Your task to perform on an android device: Go to Reddit.com Image 0: 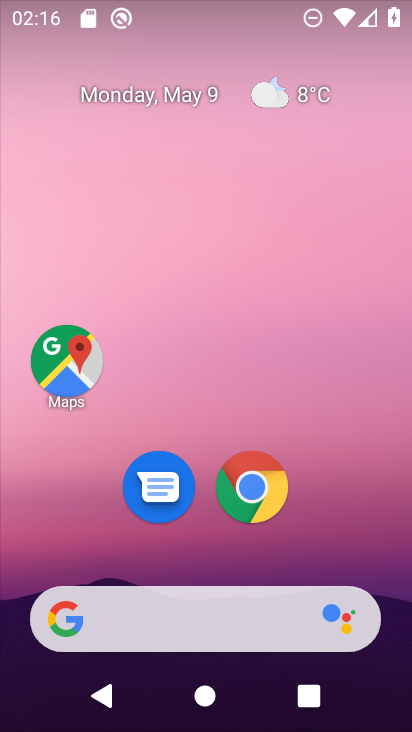
Step 0: click (257, 507)
Your task to perform on an android device: Go to Reddit.com Image 1: 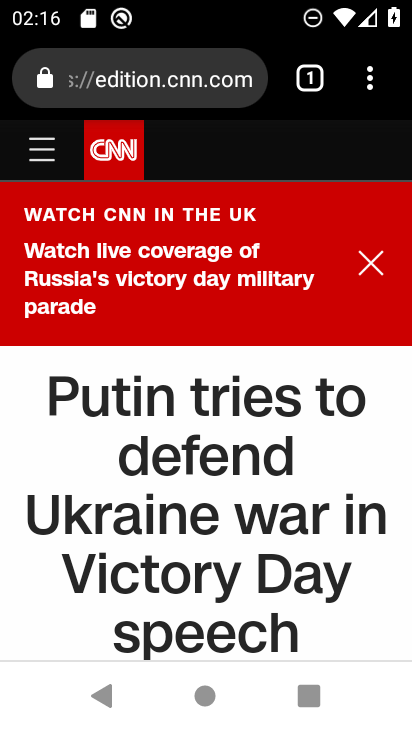
Step 1: click (182, 89)
Your task to perform on an android device: Go to Reddit.com Image 2: 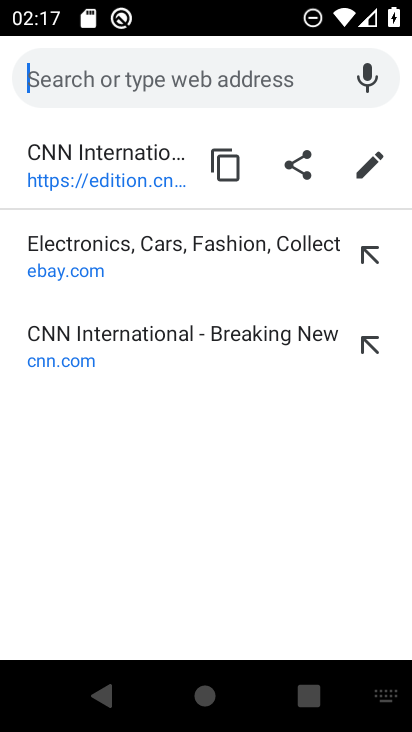
Step 2: type "reddit.com"
Your task to perform on an android device: Go to Reddit.com Image 3: 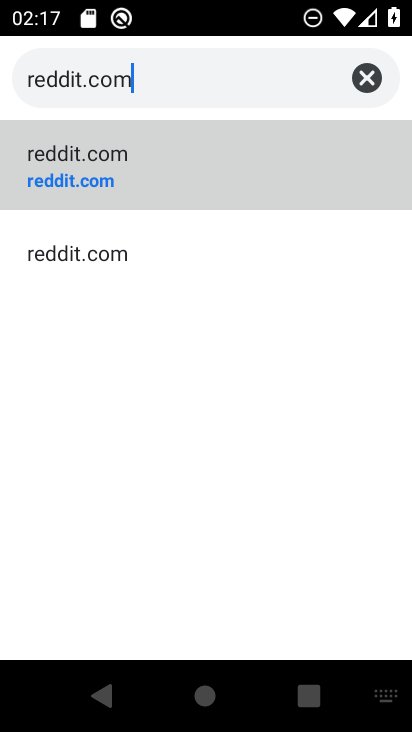
Step 3: click (148, 137)
Your task to perform on an android device: Go to Reddit.com Image 4: 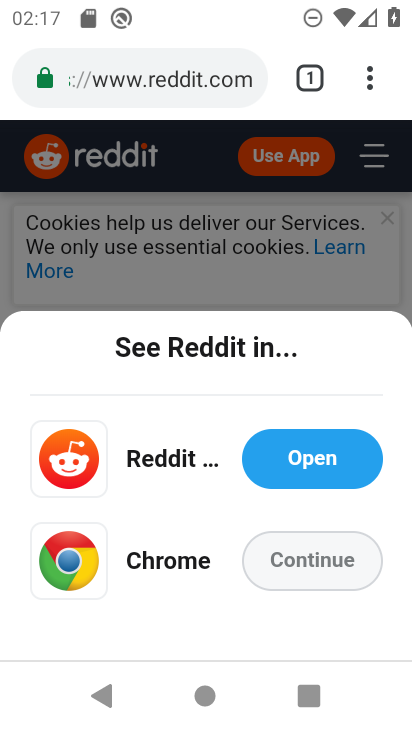
Step 4: click (345, 563)
Your task to perform on an android device: Go to Reddit.com Image 5: 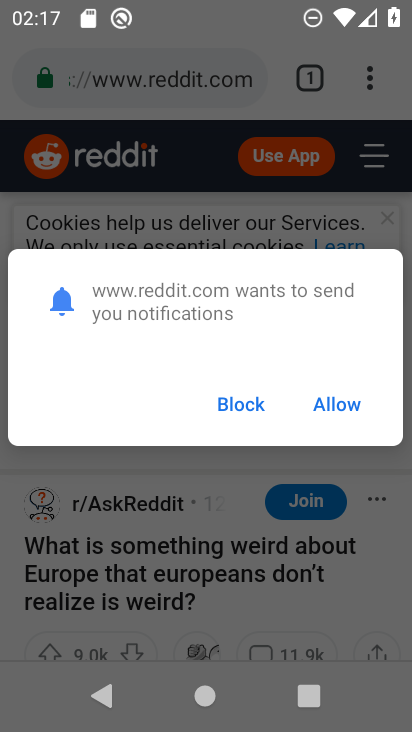
Step 5: click (260, 408)
Your task to perform on an android device: Go to Reddit.com Image 6: 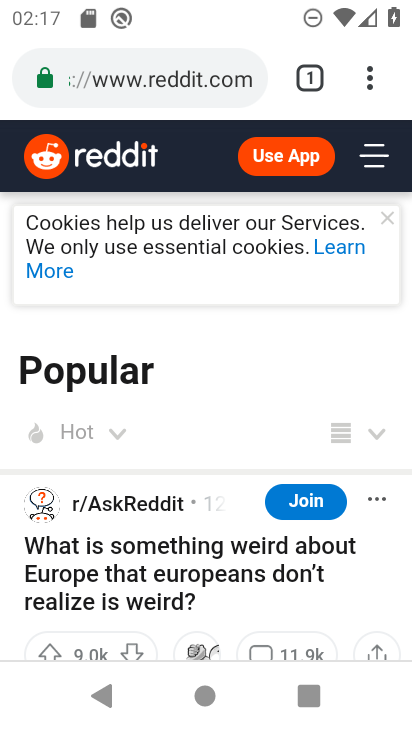
Step 6: task complete